Your task to perform on an android device: change notifications settings Image 0: 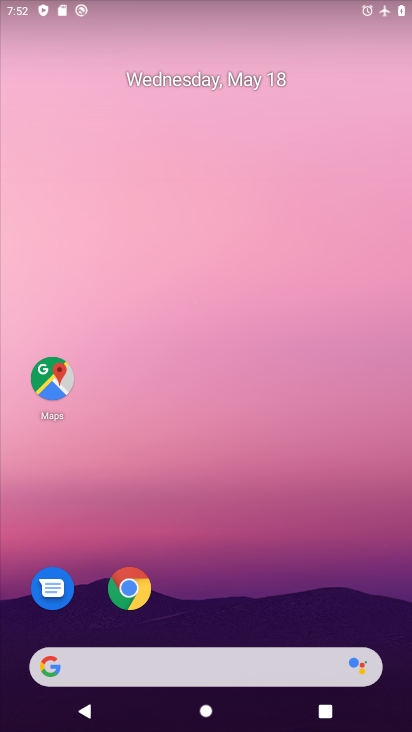
Step 0: drag from (233, 620) to (325, 226)
Your task to perform on an android device: change notifications settings Image 1: 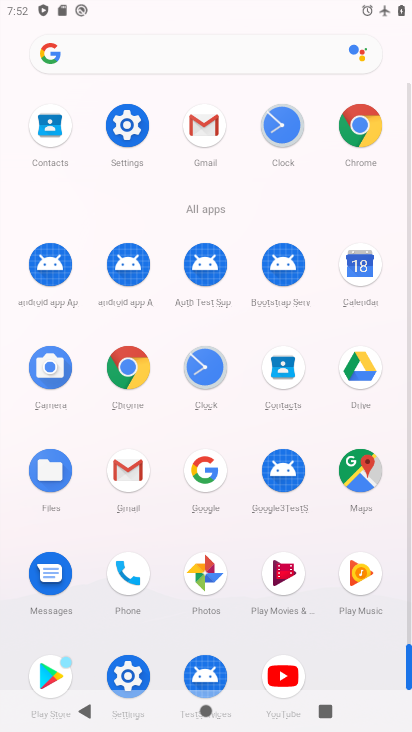
Step 1: drag from (150, 626) to (176, 516)
Your task to perform on an android device: change notifications settings Image 2: 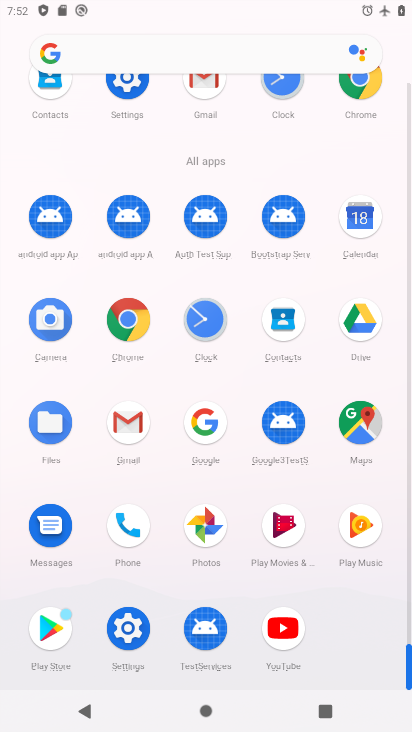
Step 2: click (138, 630)
Your task to perform on an android device: change notifications settings Image 3: 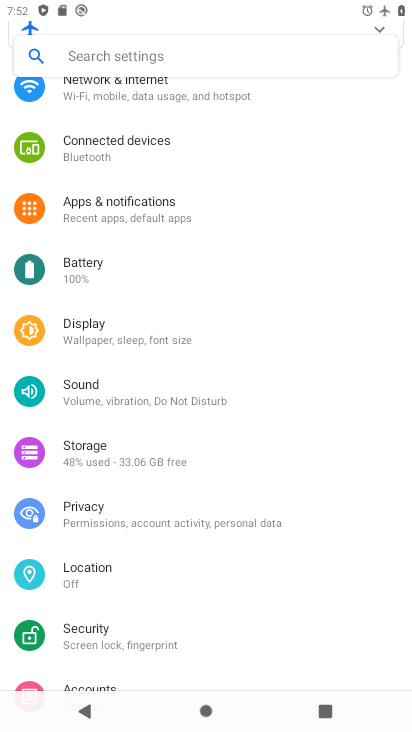
Step 3: click (159, 221)
Your task to perform on an android device: change notifications settings Image 4: 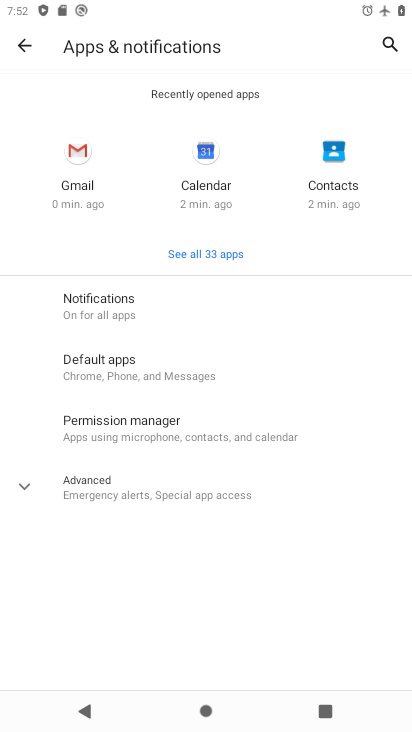
Step 4: click (118, 306)
Your task to perform on an android device: change notifications settings Image 5: 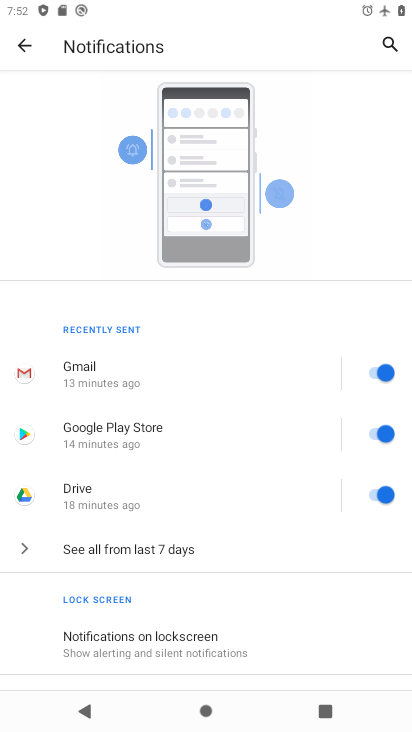
Step 5: drag from (167, 596) to (202, 411)
Your task to perform on an android device: change notifications settings Image 6: 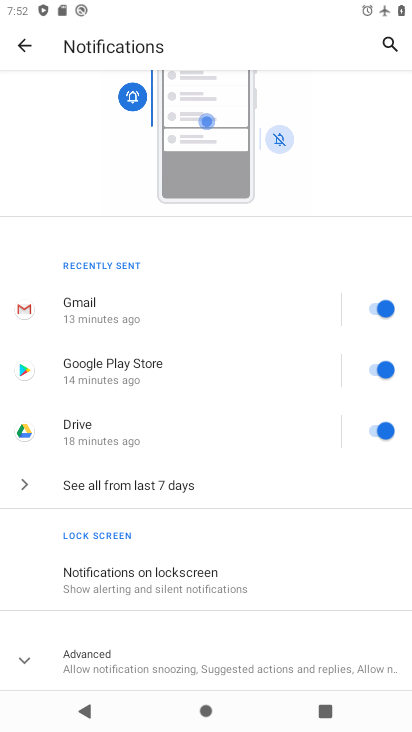
Step 6: click (371, 306)
Your task to perform on an android device: change notifications settings Image 7: 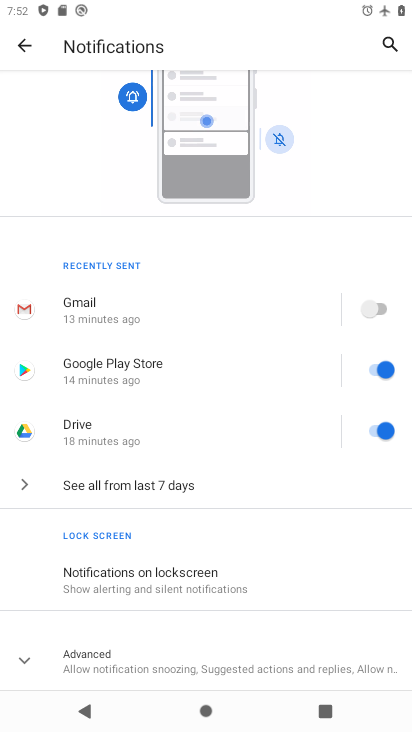
Step 7: click (377, 368)
Your task to perform on an android device: change notifications settings Image 8: 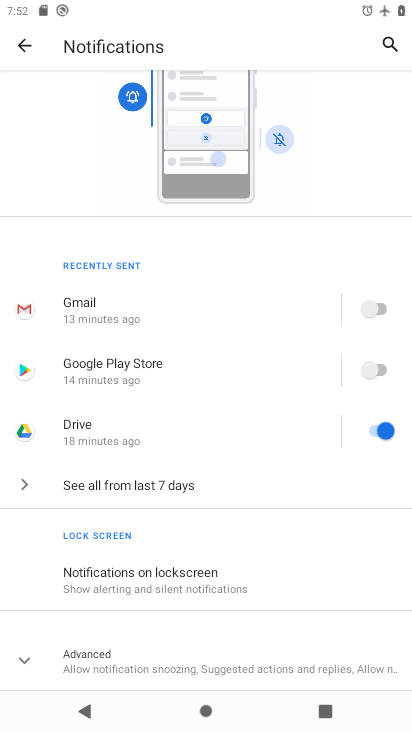
Step 8: click (375, 425)
Your task to perform on an android device: change notifications settings Image 9: 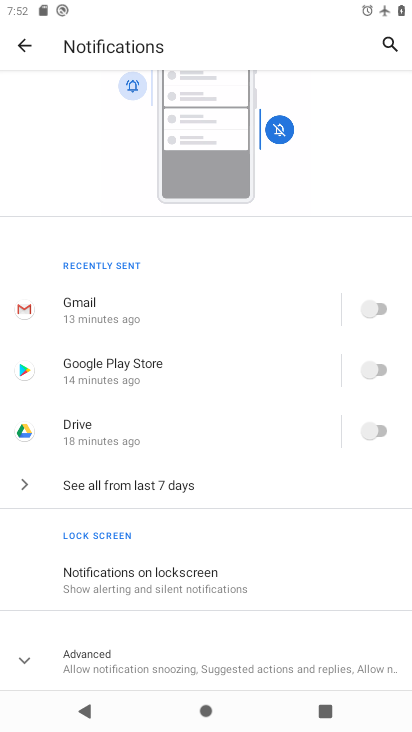
Step 9: click (130, 483)
Your task to perform on an android device: change notifications settings Image 10: 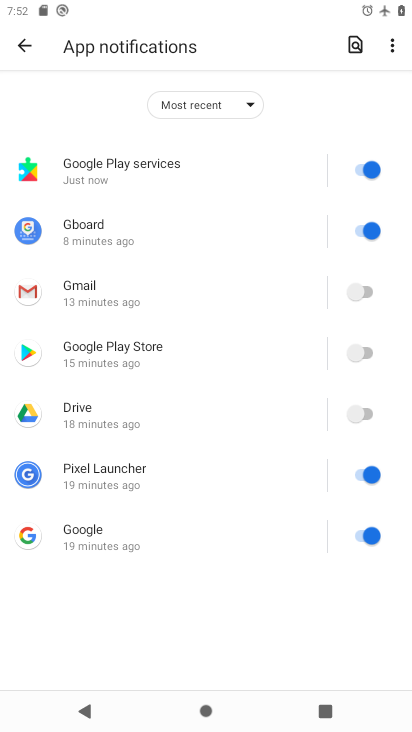
Step 10: click (354, 243)
Your task to perform on an android device: change notifications settings Image 11: 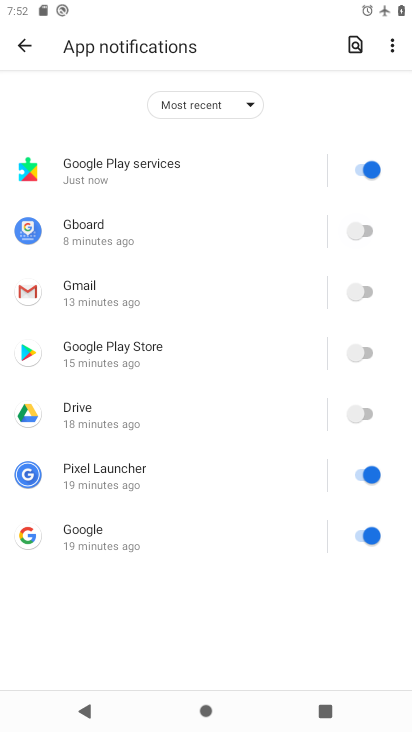
Step 11: click (356, 171)
Your task to perform on an android device: change notifications settings Image 12: 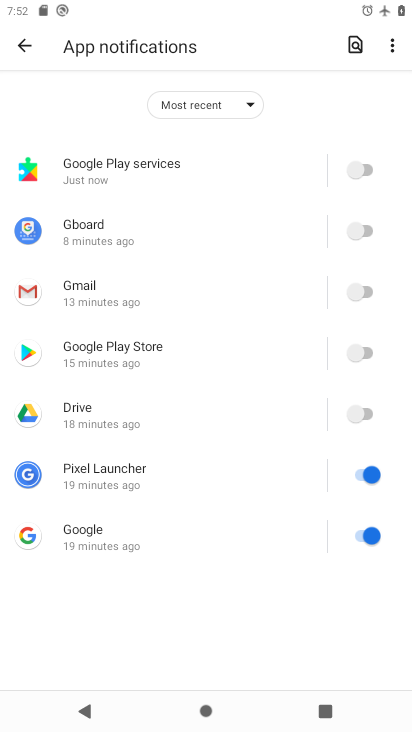
Step 12: click (365, 488)
Your task to perform on an android device: change notifications settings Image 13: 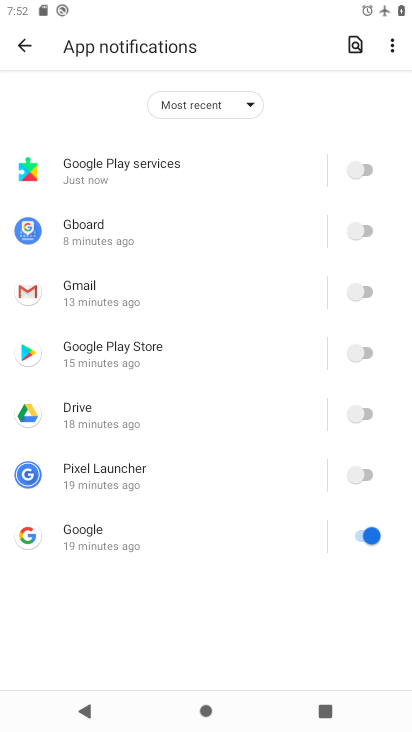
Step 13: click (361, 534)
Your task to perform on an android device: change notifications settings Image 14: 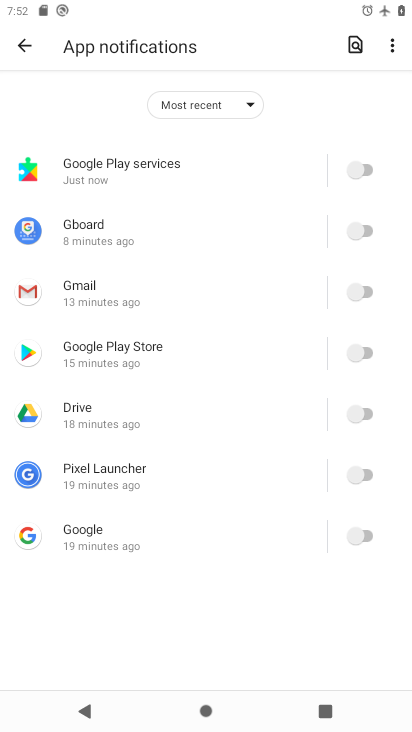
Step 14: task complete